Your task to perform on an android device: turn off smart reply in the gmail app Image 0: 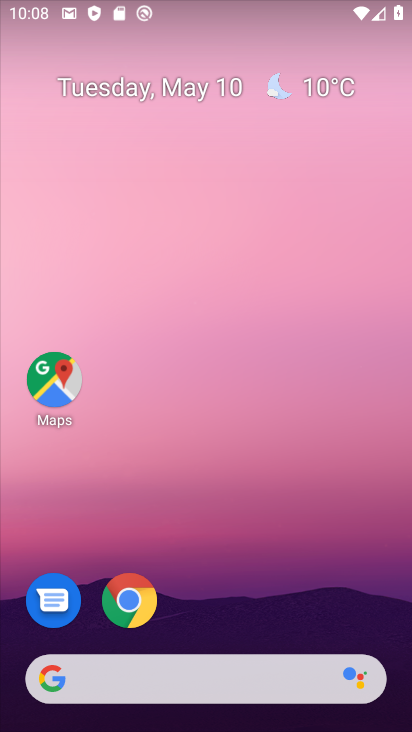
Step 0: drag from (231, 583) to (157, 21)
Your task to perform on an android device: turn off smart reply in the gmail app Image 1: 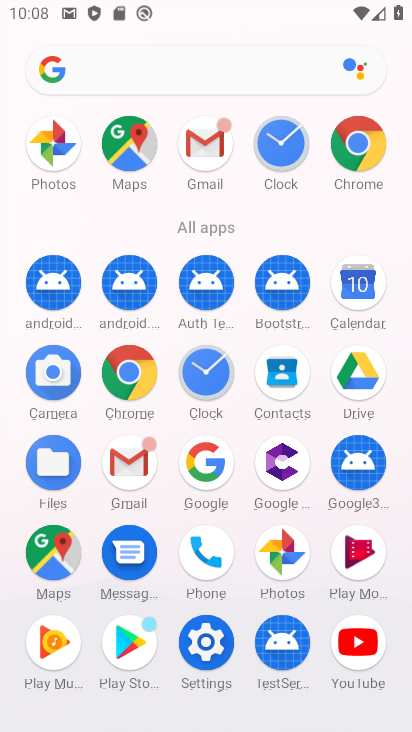
Step 1: drag from (4, 599) to (7, 248)
Your task to perform on an android device: turn off smart reply in the gmail app Image 2: 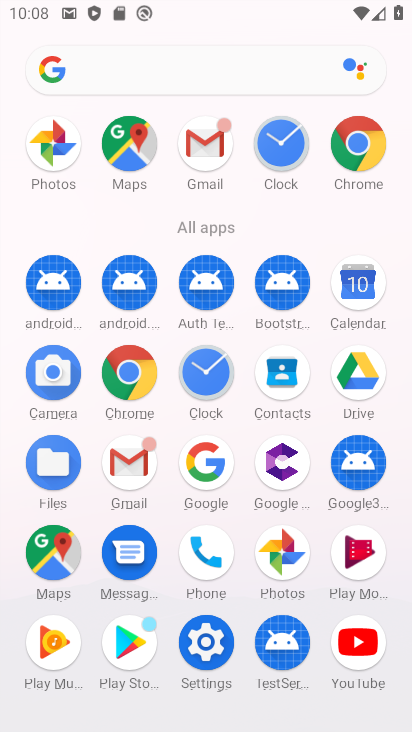
Step 2: click (205, 134)
Your task to perform on an android device: turn off smart reply in the gmail app Image 3: 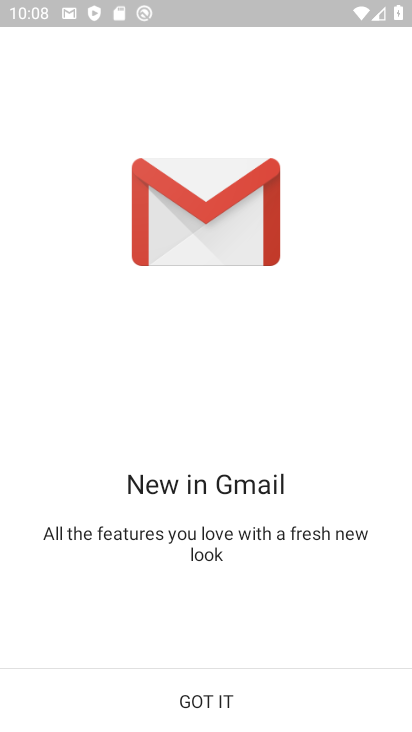
Step 3: click (212, 690)
Your task to perform on an android device: turn off smart reply in the gmail app Image 4: 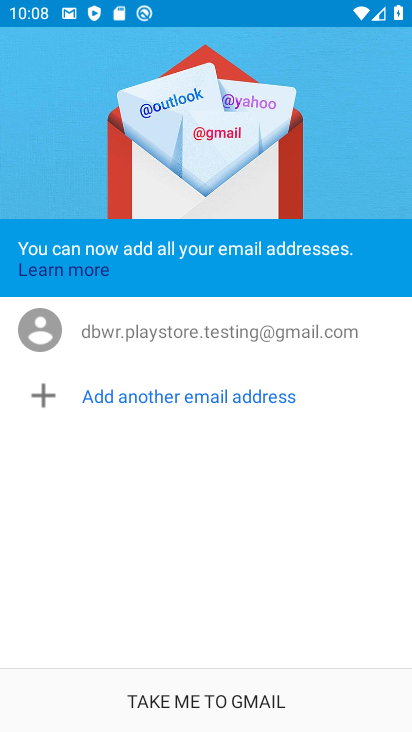
Step 4: click (208, 694)
Your task to perform on an android device: turn off smart reply in the gmail app Image 5: 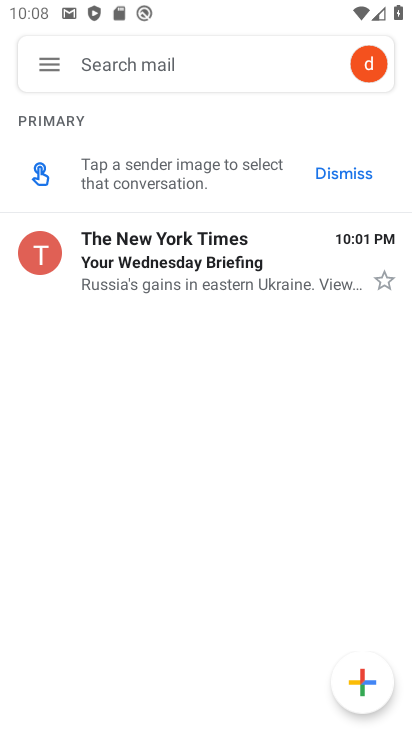
Step 5: click (52, 63)
Your task to perform on an android device: turn off smart reply in the gmail app Image 6: 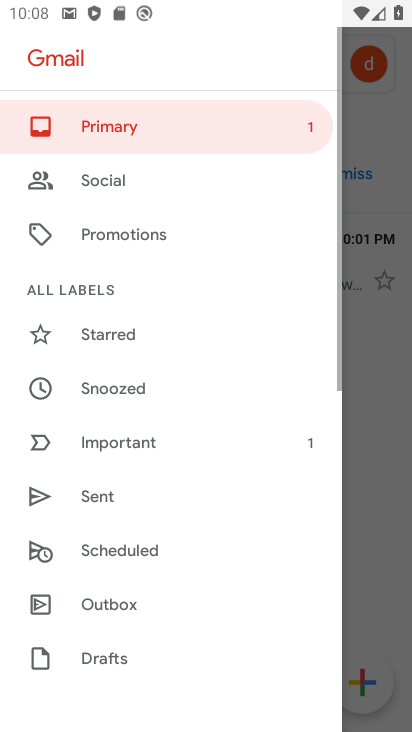
Step 6: drag from (163, 647) to (190, 165)
Your task to perform on an android device: turn off smart reply in the gmail app Image 7: 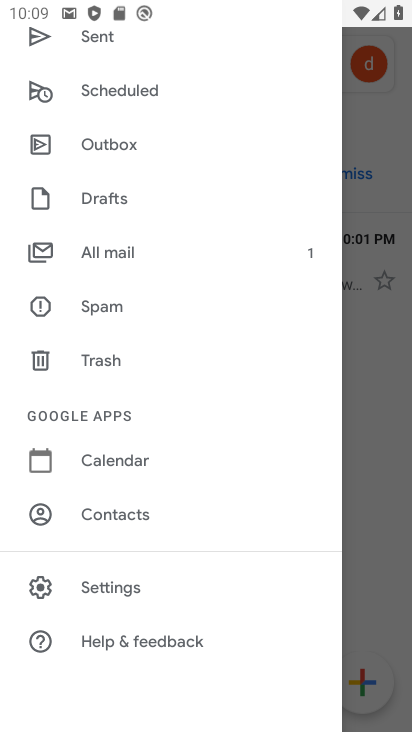
Step 7: click (127, 578)
Your task to perform on an android device: turn off smart reply in the gmail app Image 8: 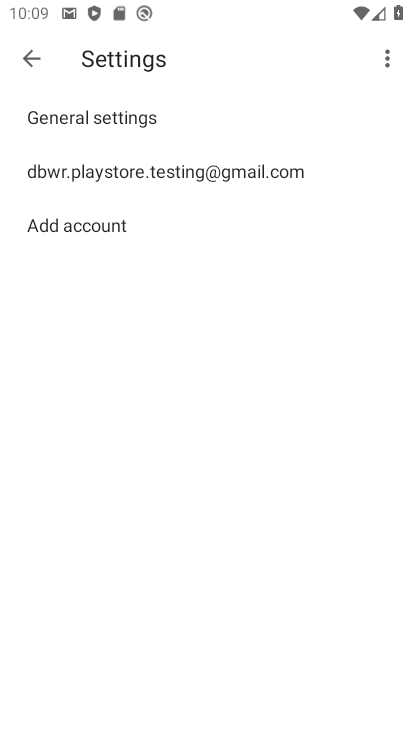
Step 8: click (160, 181)
Your task to perform on an android device: turn off smart reply in the gmail app Image 9: 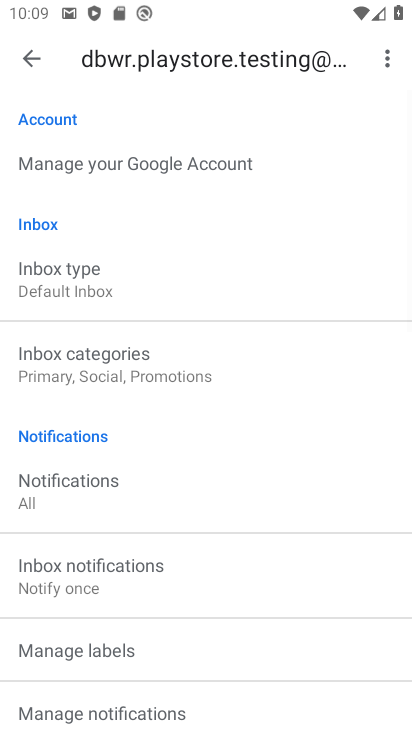
Step 9: drag from (201, 600) to (216, 203)
Your task to perform on an android device: turn off smart reply in the gmail app Image 10: 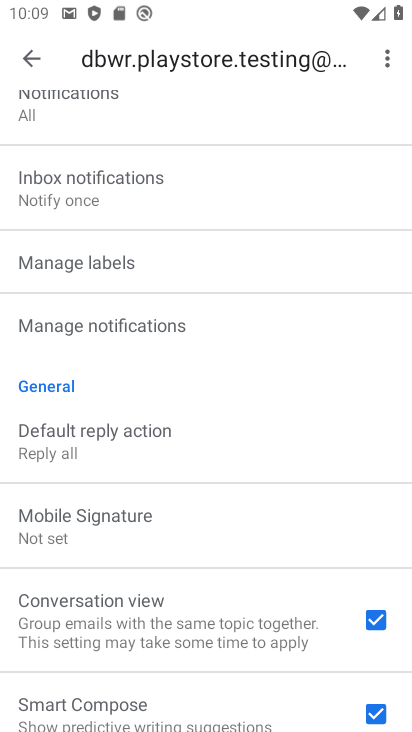
Step 10: drag from (180, 664) to (201, 183)
Your task to perform on an android device: turn off smart reply in the gmail app Image 11: 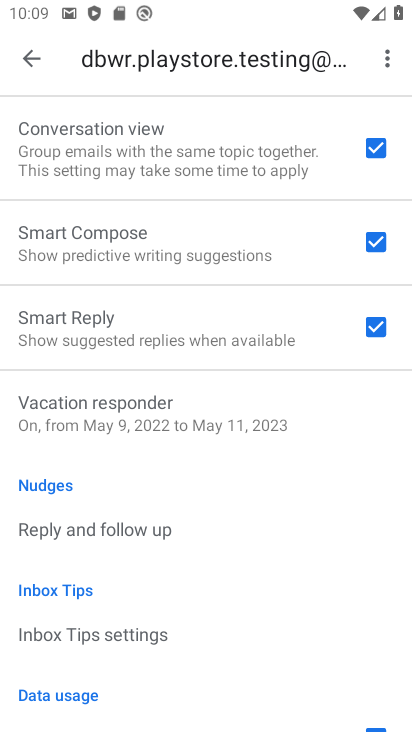
Step 11: click (376, 325)
Your task to perform on an android device: turn off smart reply in the gmail app Image 12: 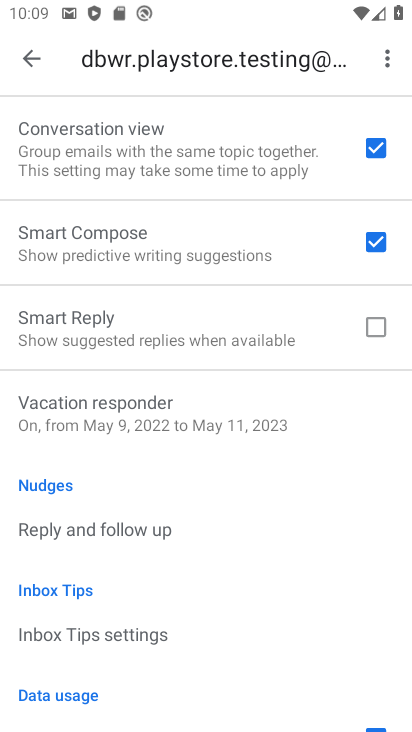
Step 12: task complete